Your task to perform on an android device: Do I have any events today? Image 0: 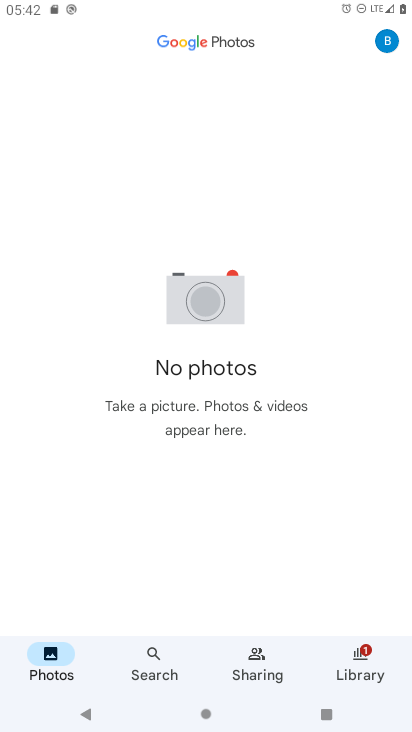
Step 0: press home button
Your task to perform on an android device: Do I have any events today? Image 1: 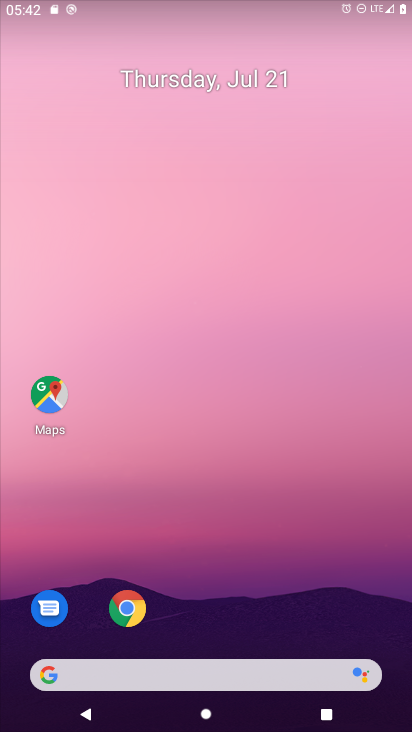
Step 1: drag from (197, 572) to (260, 5)
Your task to perform on an android device: Do I have any events today? Image 2: 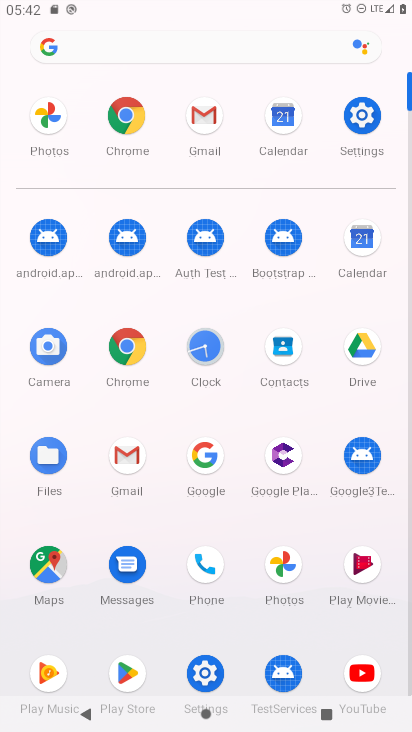
Step 2: click (354, 247)
Your task to perform on an android device: Do I have any events today? Image 3: 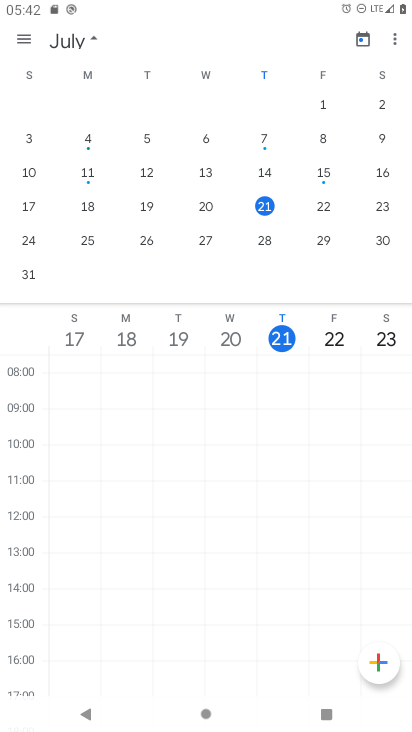
Step 3: click (268, 207)
Your task to perform on an android device: Do I have any events today? Image 4: 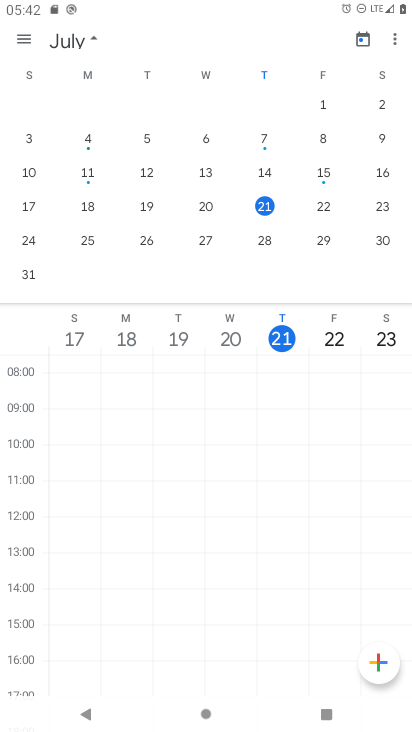
Step 4: task complete